Your task to perform on an android device: toggle translation in the chrome app Image 0: 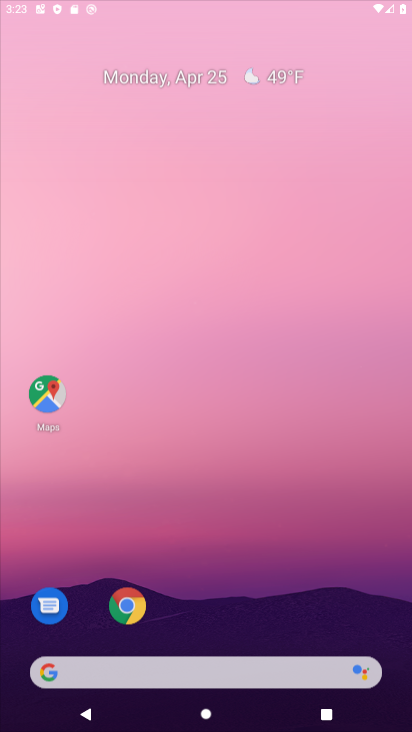
Step 0: drag from (296, 64) to (361, 531)
Your task to perform on an android device: toggle translation in the chrome app Image 1: 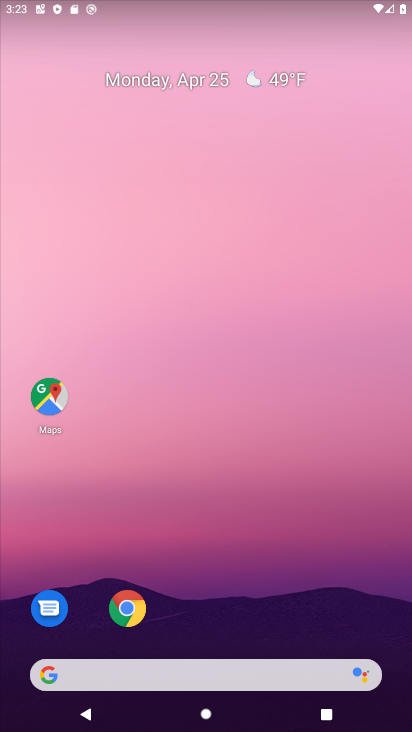
Step 1: click (131, 608)
Your task to perform on an android device: toggle translation in the chrome app Image 2: 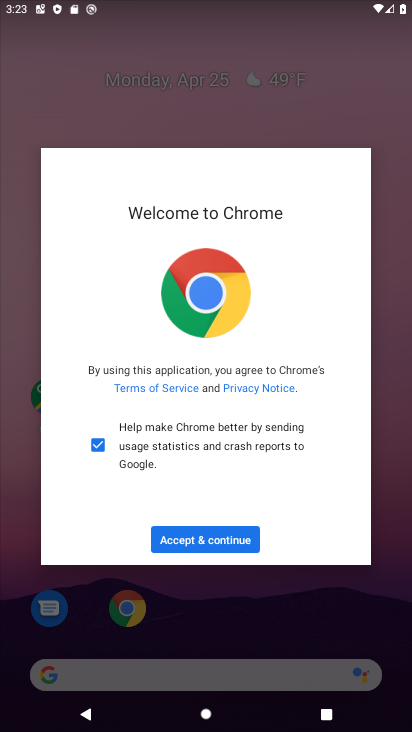
Step 2: press home button
Your task to perform on an android device: toggle translation in the chrome app Image 3: 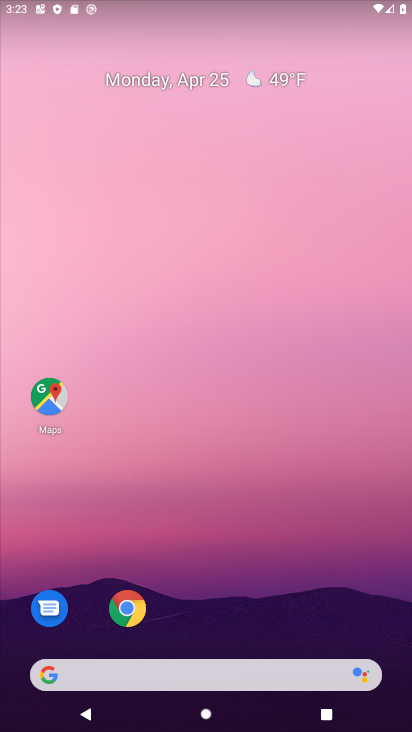
Step 3: click (131, 611)
Your task to perform on an android device: toggle translation in the chrome app Image 4: 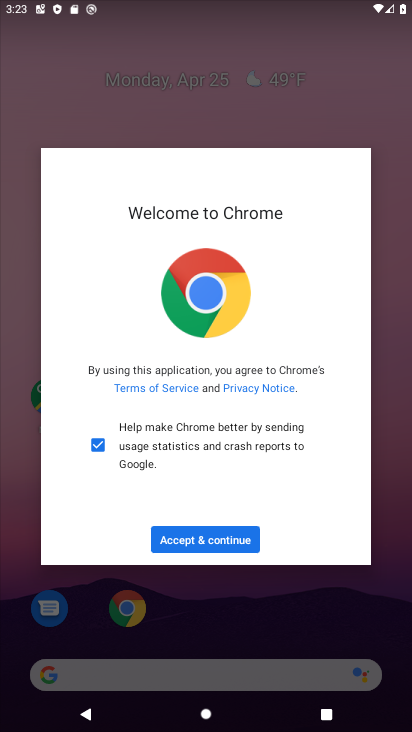
Step 4: click (200, 540)
Your task to perform on an android device: toggle translation in the chrome app Image 5: 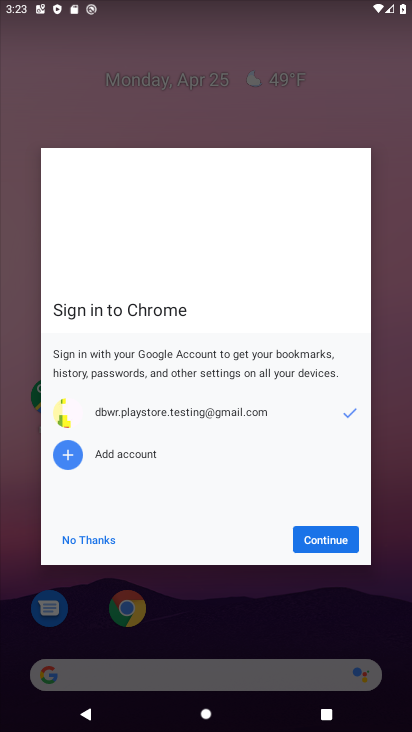
Step 5: click (315, 543)
Your task to perform on an android device: toggle translation in the chrome app Image 6: 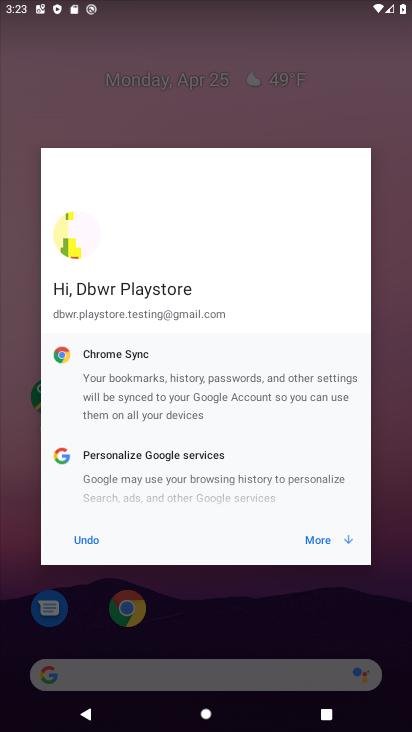
Step 6: click (315, 543)
Your task to perform on an android device: toggle translation in the chrome app Image 7: 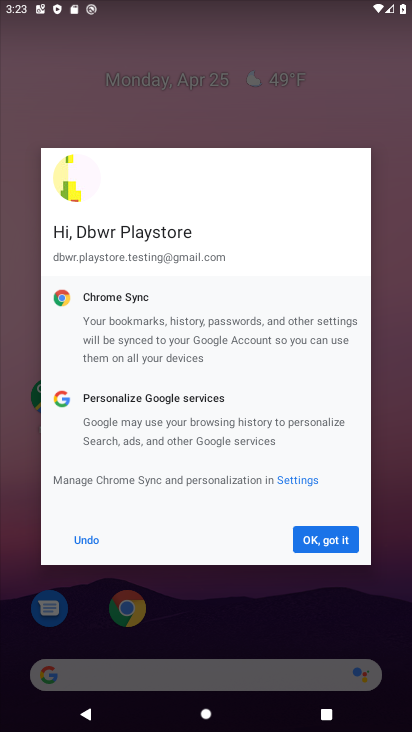
Step 7: click (315, 543)
Your task to perform on an android device: toggle translation in the chrome app Image 8: 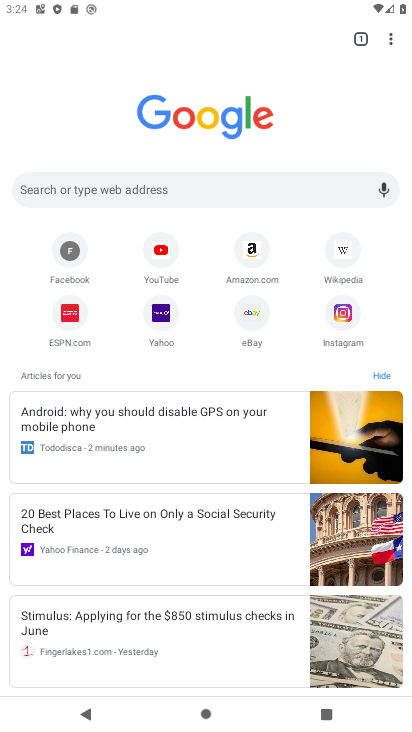
Step 8: click (391, 40)
Your task to perform on an android device: toggle translation in the chrome app Image 9: 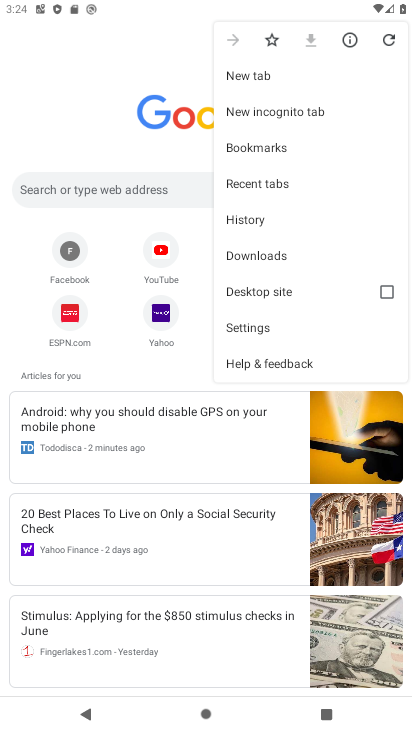
Step 9: task complete